Your task to perform on an android device: toggle translation in the chrome app Image 0: 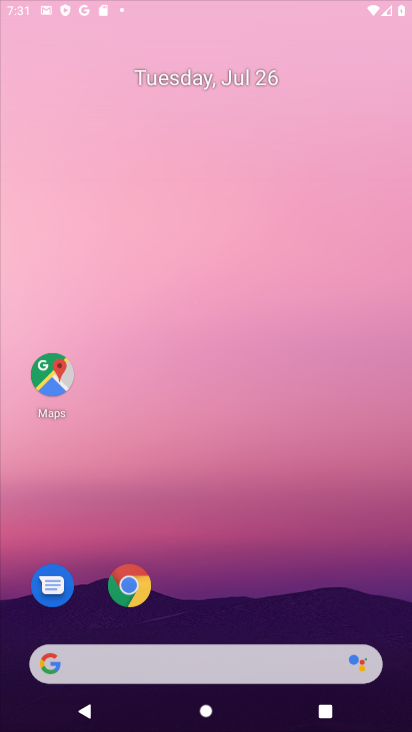
Step 0: click (229, 182)
Your task to perform on an android device: toggle translation in the chrome app Image 1: 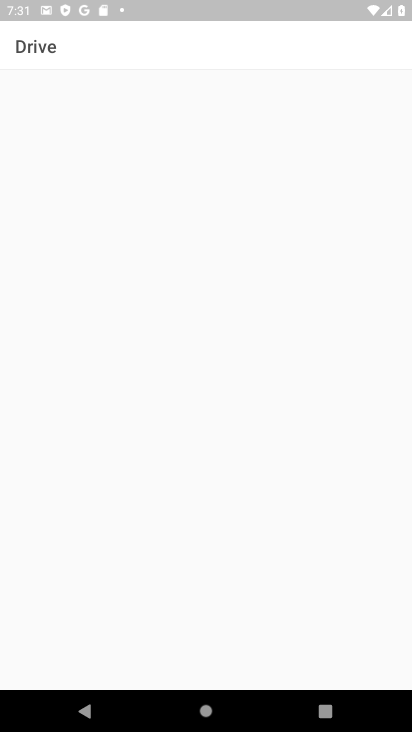
Step 1: press home button
Your task to perform on an android device: toggle translation in the chrome app Image 2: 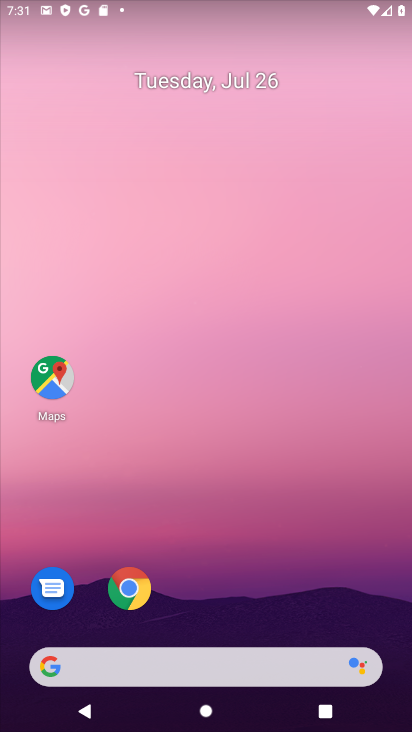
Step 2: drag from (236, 662) to (237, 237)
Your task to perform on an android device: toggle translation in the chrome app Image 3: 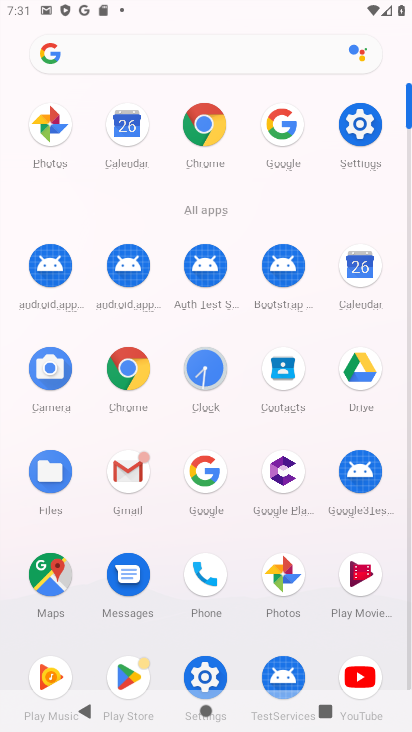
Step 3: click (216, 133)
Your task to perform on an android device: toggle translation in the chrome app Image 4: 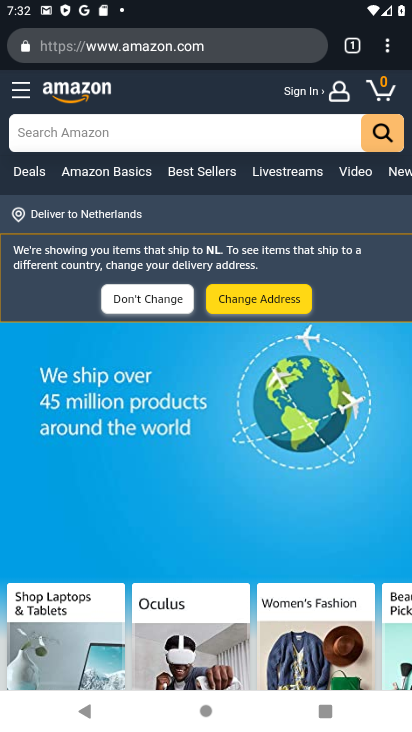
Step 4: click (392, 44)
Your task to perform on an android device: toggle translation in the chrome app Image 5: 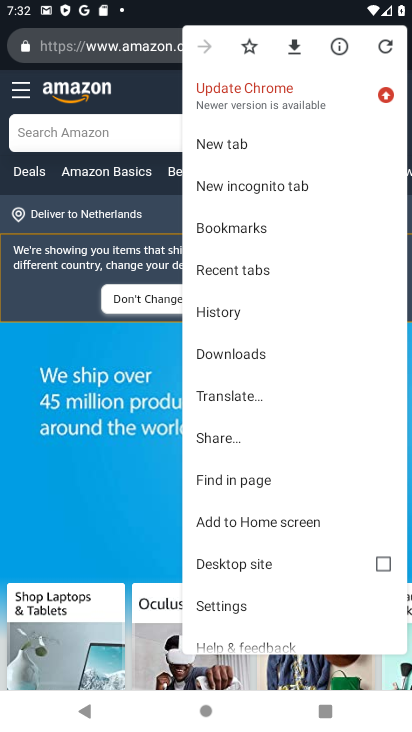
Step 5: click (217, 391)
Your task to perform on an android device: toggle translation in the chrome app Image 6: 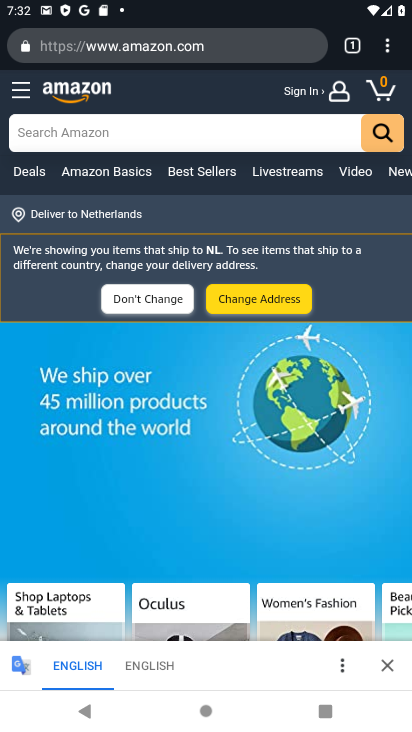
Step 6: click (349, 675)
Your task to perform on an android device: toggle translation in the chrome app Image 7: 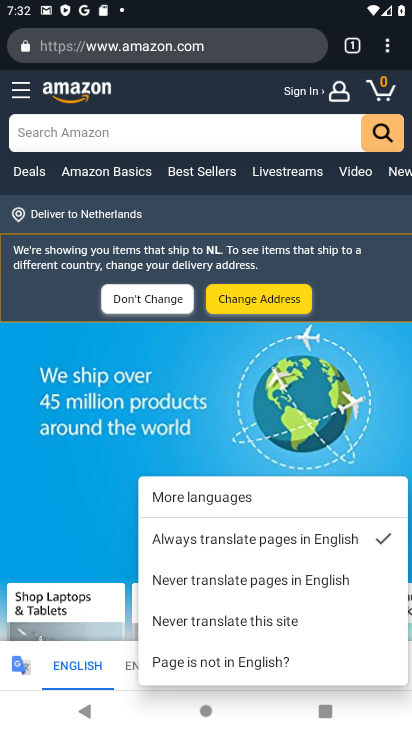
Step 7: click (249, 624)
Your task to perform on an android device: toggle translation in the chrome app Image 8: 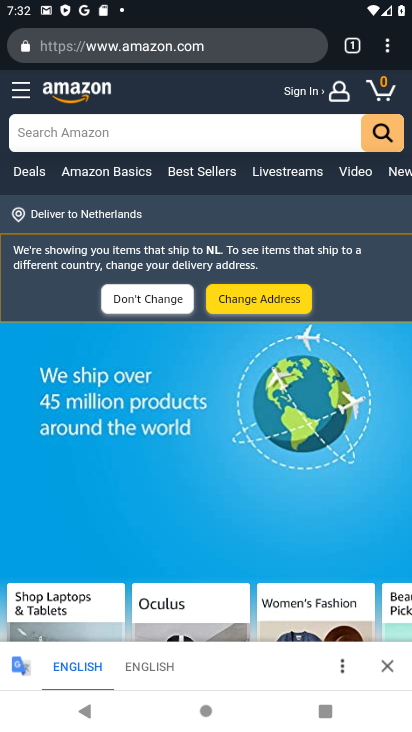
Step 8: task complete